Your task to perform on an android device: move a message to another label in the gmail app Image 0: 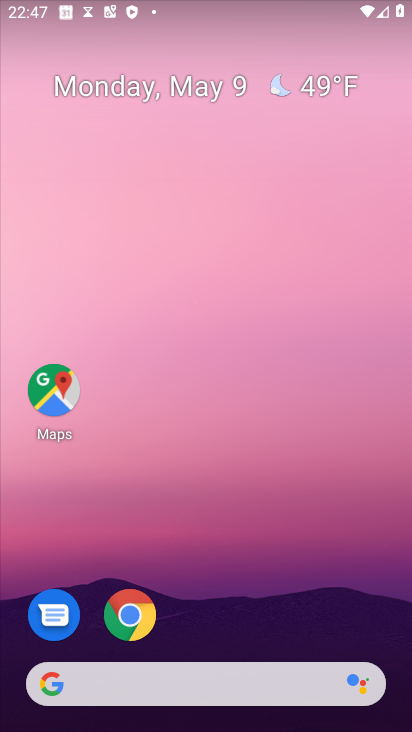
Step 0: drag from (224, 607) to (218, 346)
Your task to perform on an android device: move a message to another label in the gmail app Image 1: 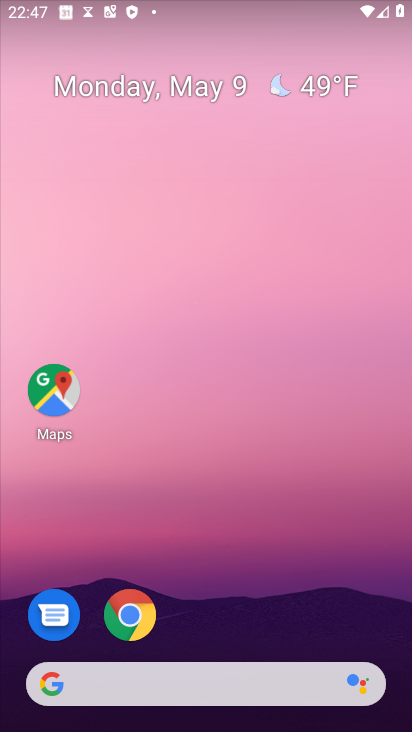
Step 1: drag from (251, 598) to (252, 115)
Your task to perform on an android device: move a message to another label in the gmail app Image 2: 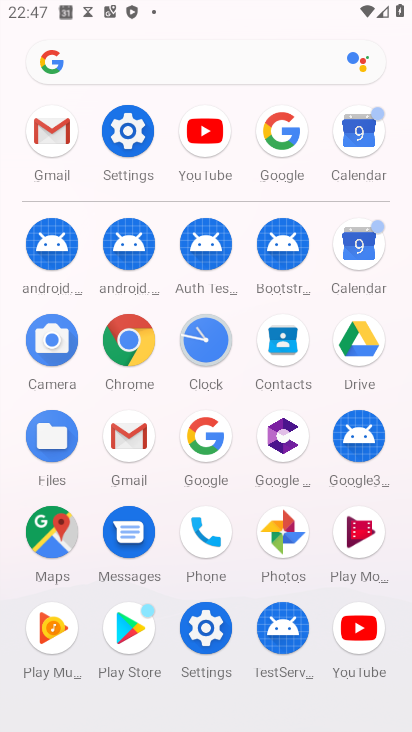
Step 2: click (41, 152)
Your task to perform on an android device: move a message to another label in the gmail app Image 3: 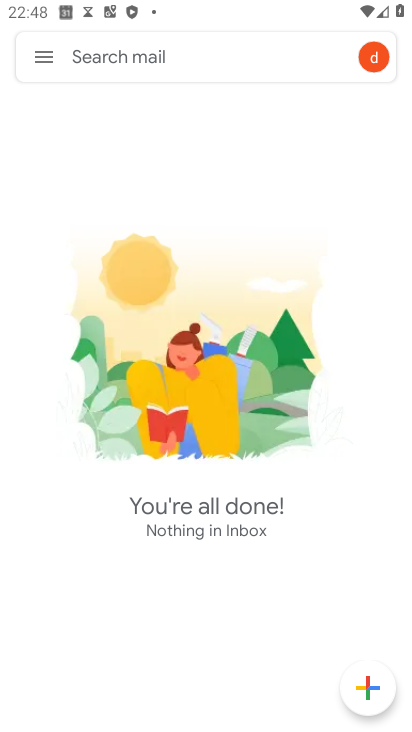
Step 3: task complete